Your task to perform on an android device: Show me popular games on the Play Store Image 0: 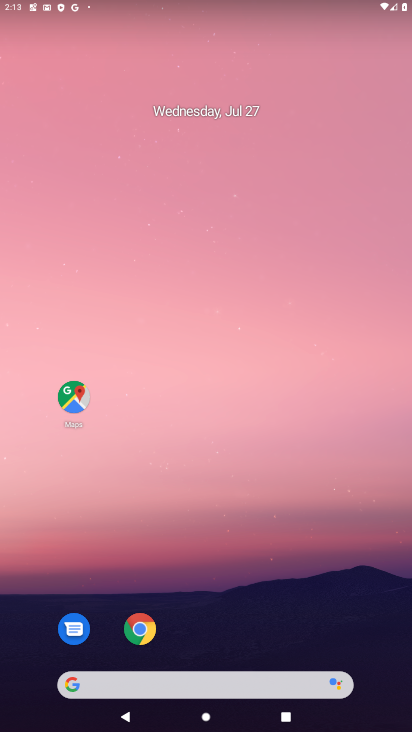
Step 0: task complete